Your task to perform on an android device: Go to ESPN.com Image 0: 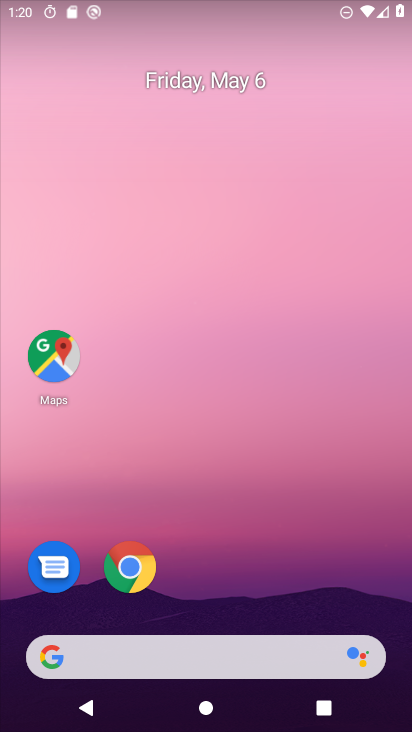
Step 0: drag from (299, 673) to (276, 183)
Your task to perform on an android device: Go to ESPN.com Image 1: 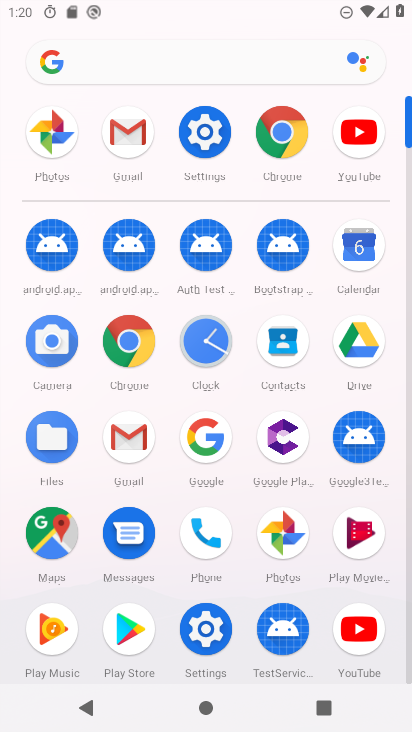
Step 1: click (275, 141)
Your task to perform on an android device: Go to ESPN.com Image 2: 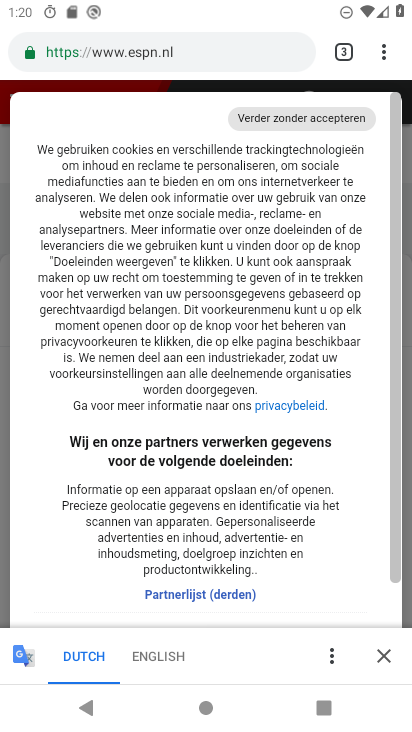
Step 2: click (384, 656)
Your task to perform on an android device: Go to ESPN.com Image 3: 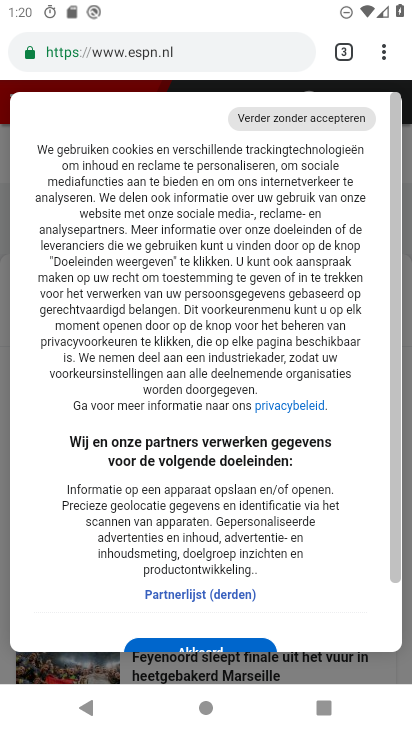
Step 3: click (242, 634)
Your task to perform on an android device: Go to ESPN.com Image 4: 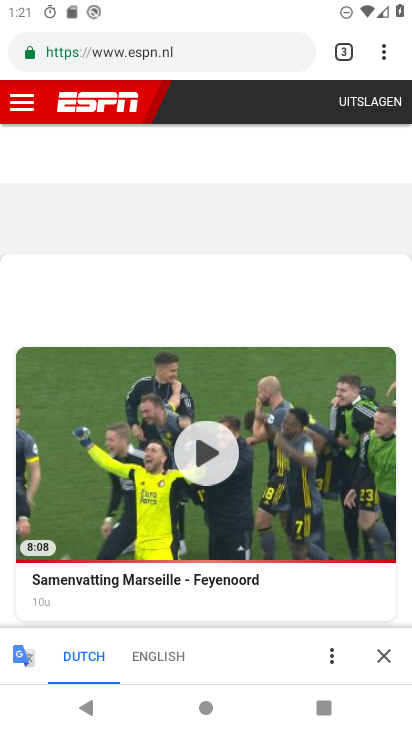
Step 4: task complete